Your task to perform on an android device: Open the Play Movies app and select the watchlist tab. Image 0: 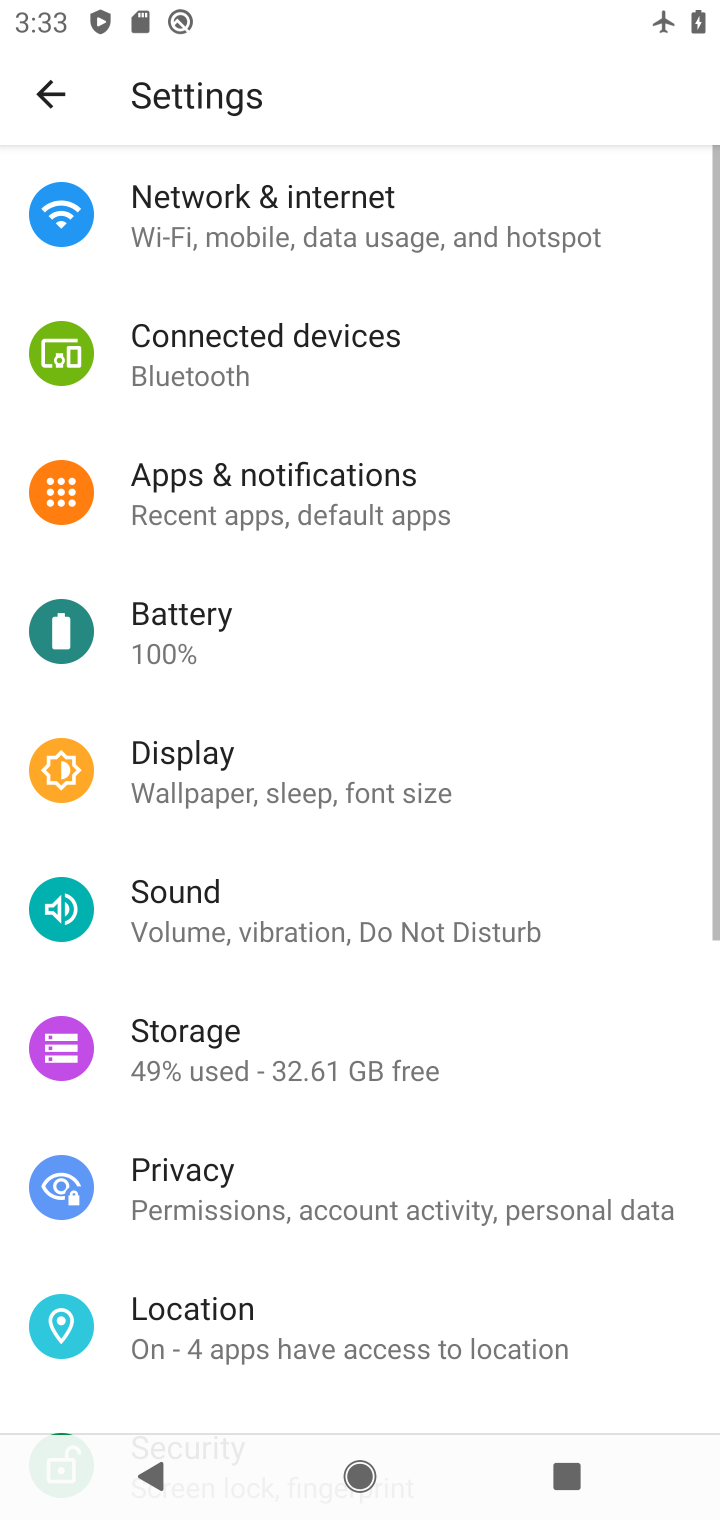
Step 0: press home button
Your task to perform on an android device: Open the Play Movies app and select the watchlist tab. Image 1: 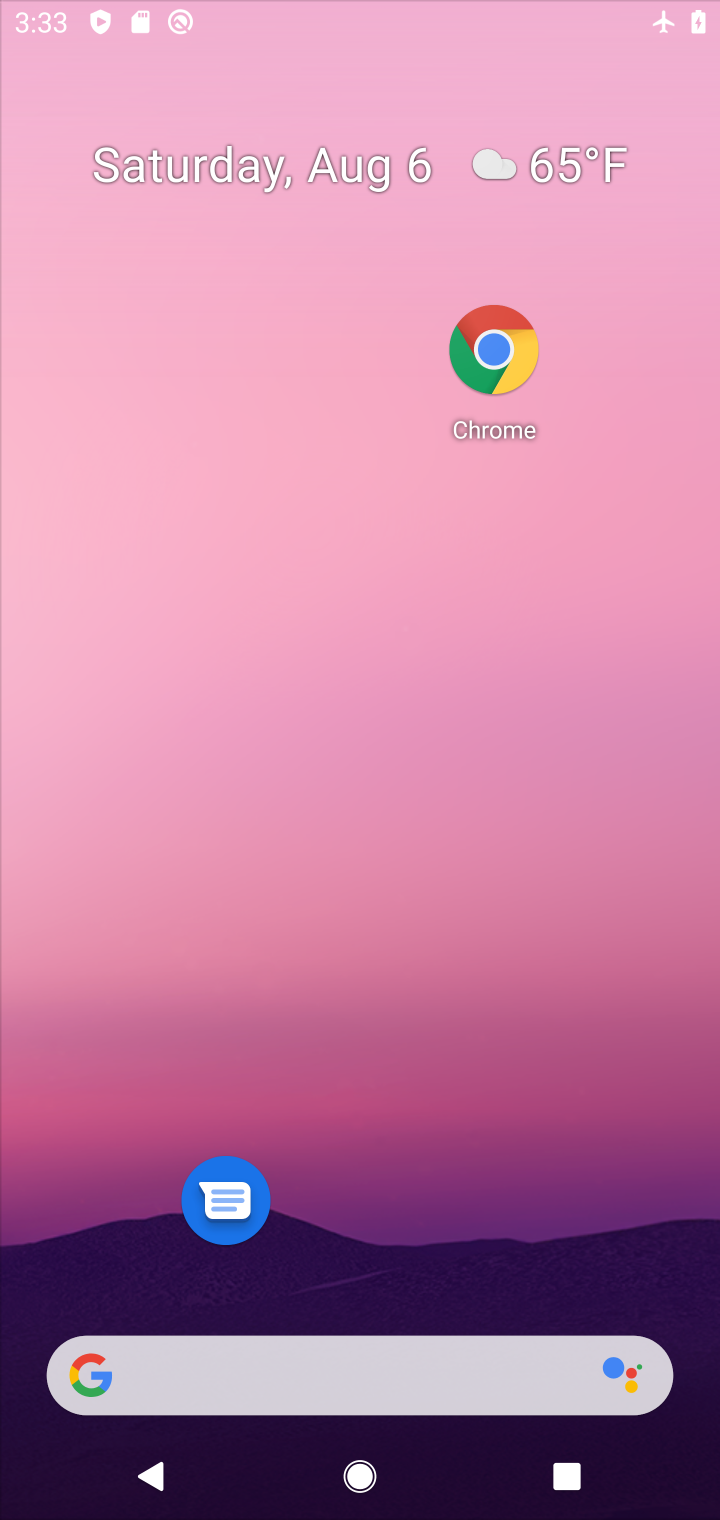
Step 1: drag from (251, 1388) to (482, 89)
Your task to perform on an android device: Open the Play Movies app and select the watchlist tab. Image 2: 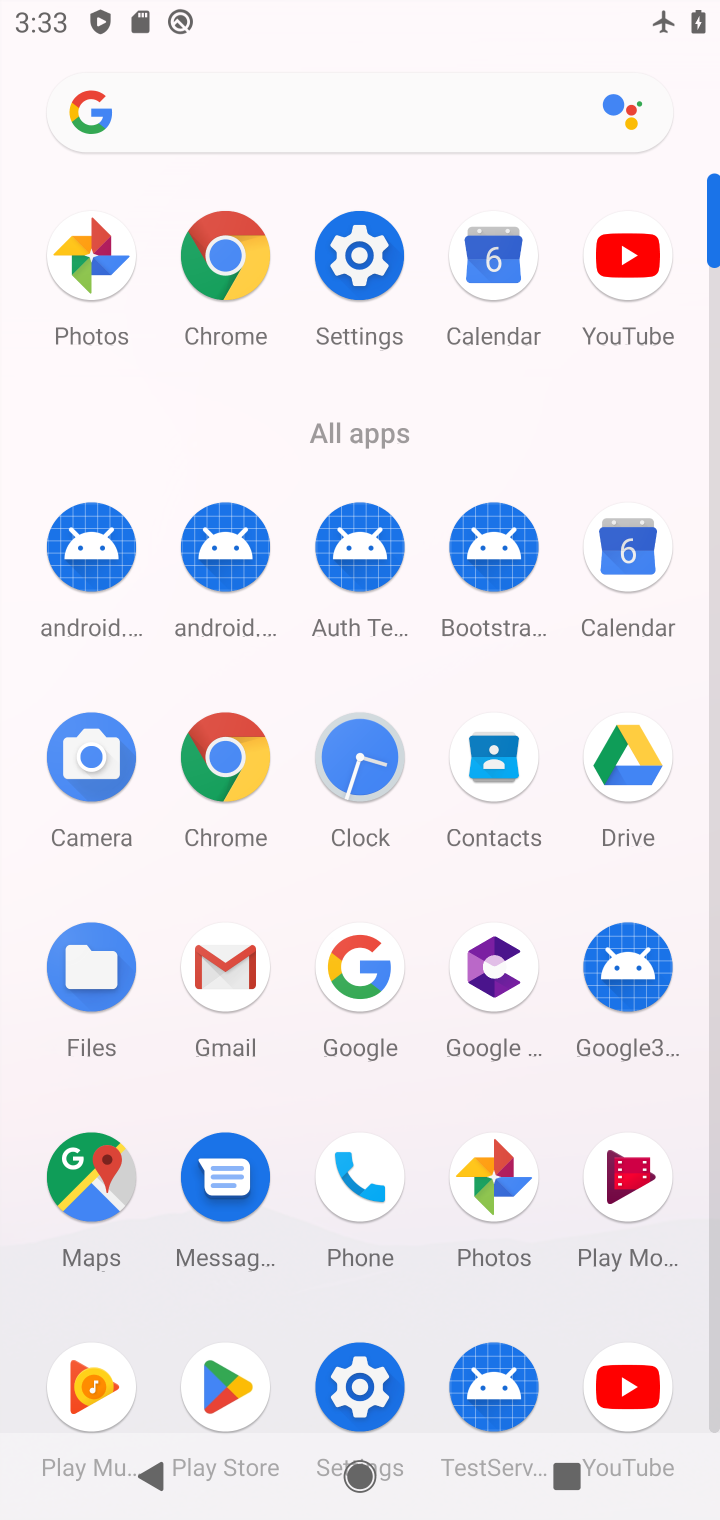
Step 2: click (611, 1139)
Your task to perform on an android device: Open the Play Movies app and select the watchlist tab. Image 3: 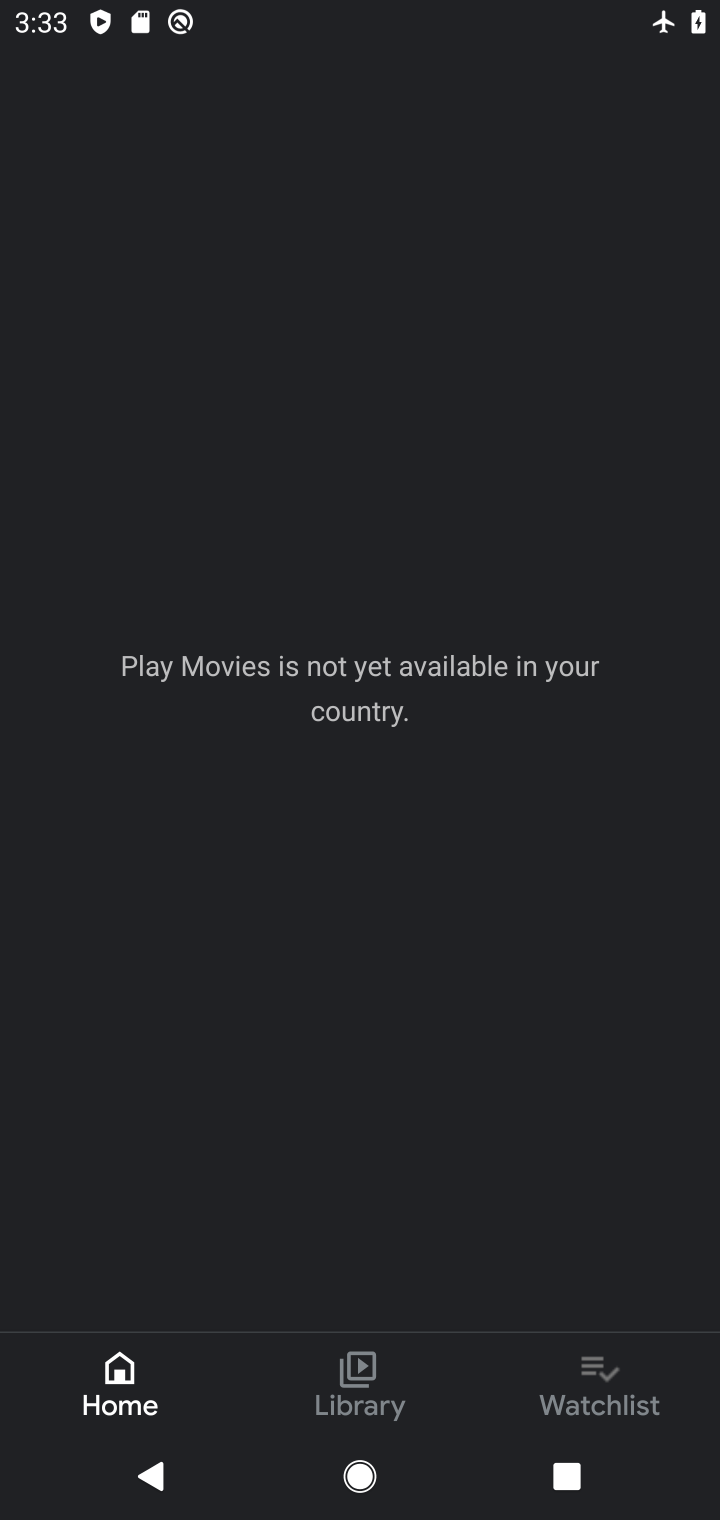
Step 3: click (561, 1402)
Your task to perform on an android device: Open the Play Movies app and select the watchlist tab. Image 4: 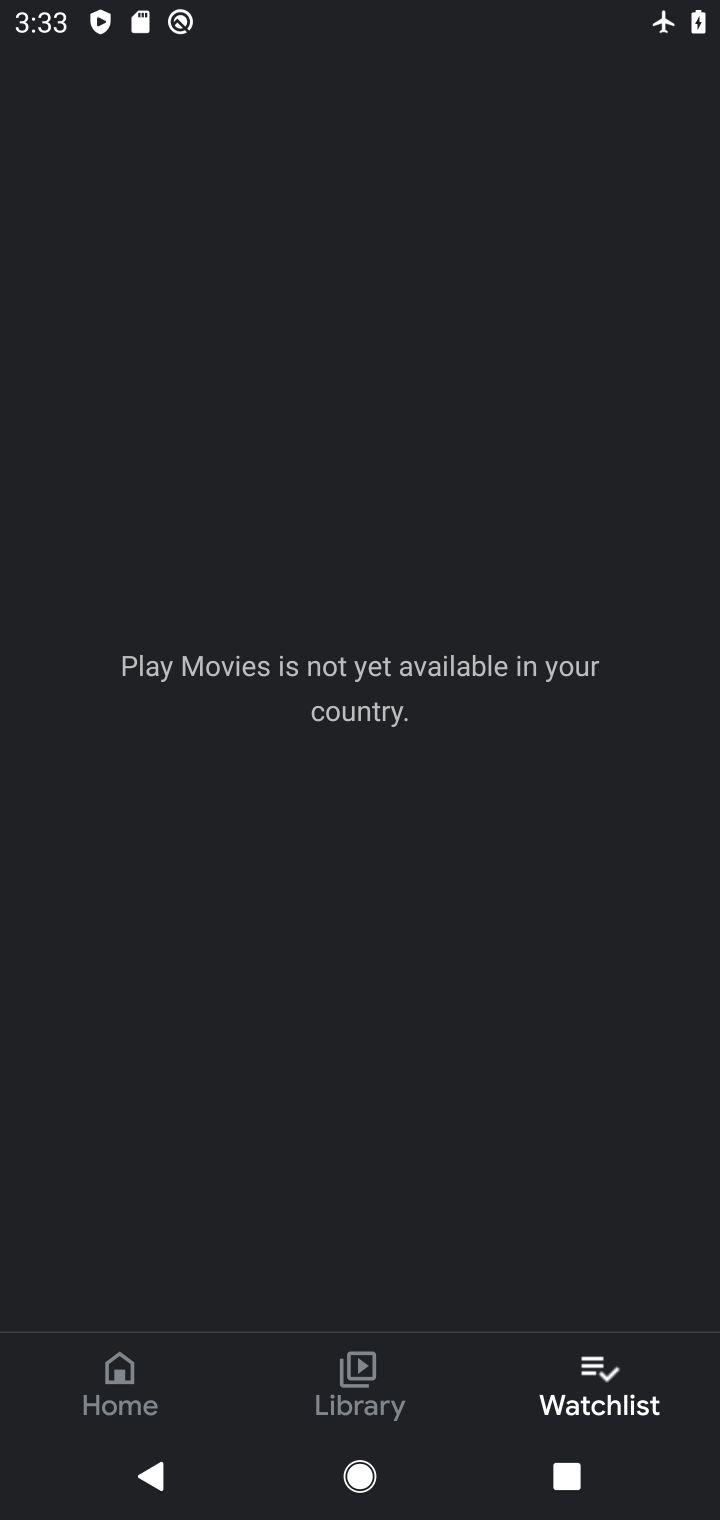
Step 4: task complete